Your task to perform on an android device: Go to battery settings Image 0: 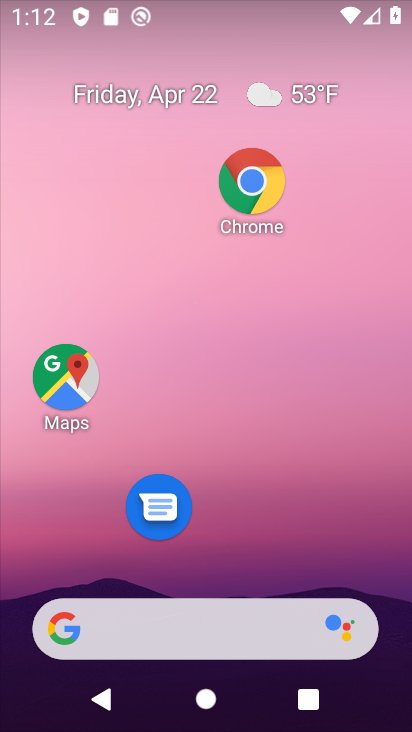
Step 0: drag from (283, 551) to (193, 10)
Your task to perform on an android device: Go to battery settings Image 1: 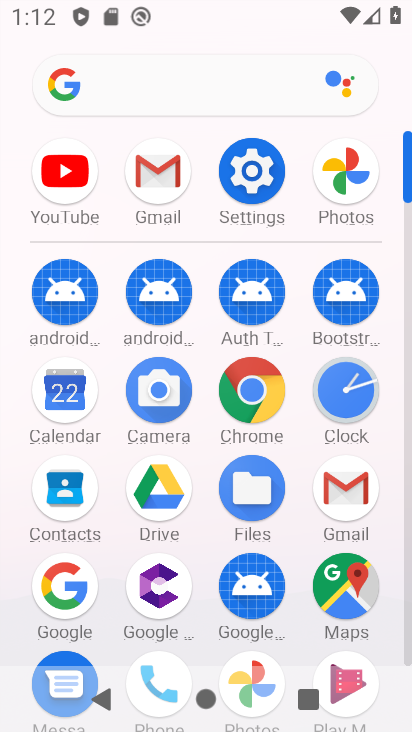
Step 1: click (263, 164)
Your task to perform on an android device: Go to battery settings Image 2: 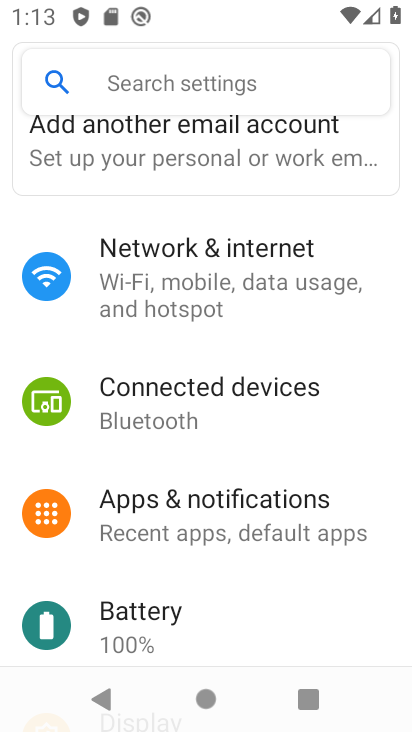
Step 2: drag from (177, 465) to (168, 313)
Your task to perform on an android device: Go to battery settings Image 3: 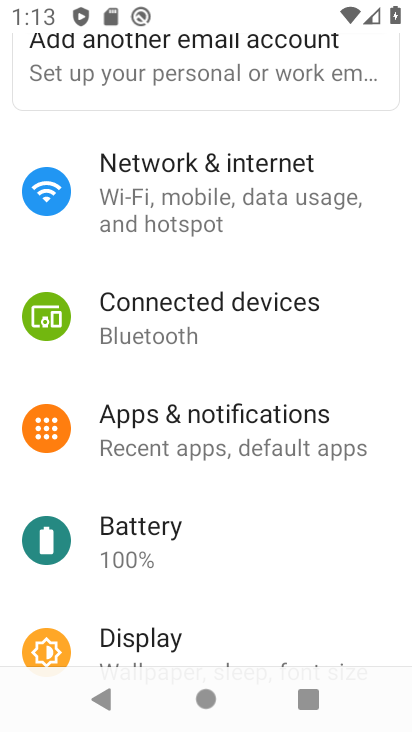
Step 3: click (206, 525)
Your task to perform on an android device: Go to battery settings Image 4: 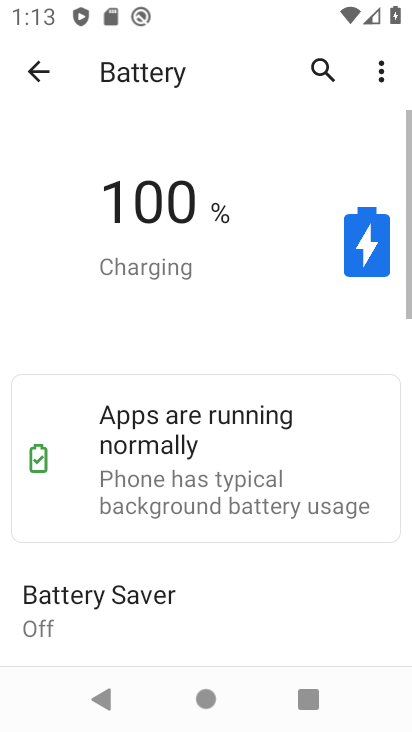
Step 4: task complete